Your task to perform on an android device: Do I have any events today? Image 0: 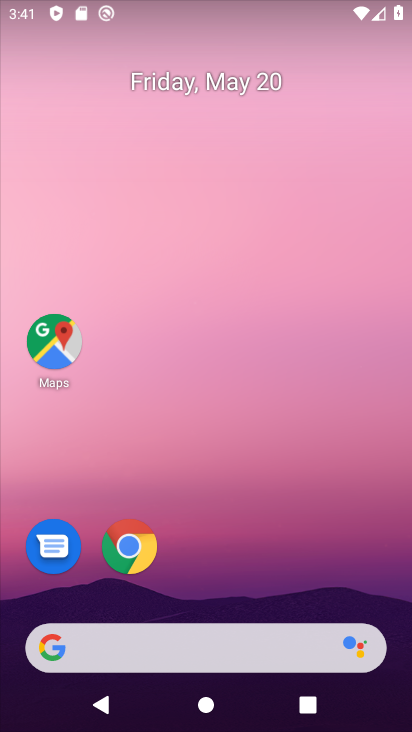
Step 0: drag from (302, 580) to (347, 177)
Your task to perform on an android device: Do I have any events today? Image 1: 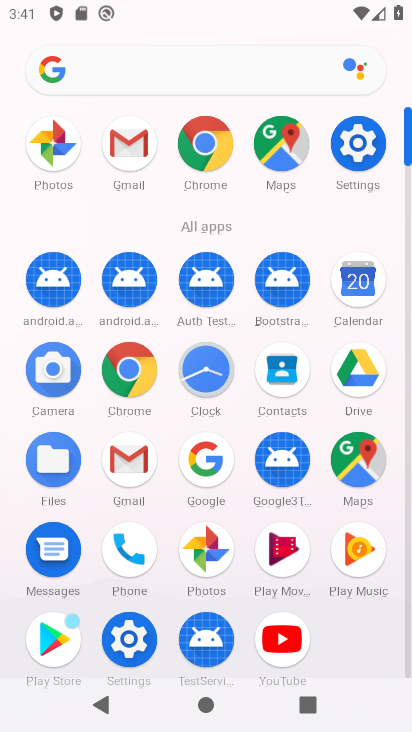
Step 1: click (370, 279)
Your task to perform on an android device: Do I have any events today? Image 2: 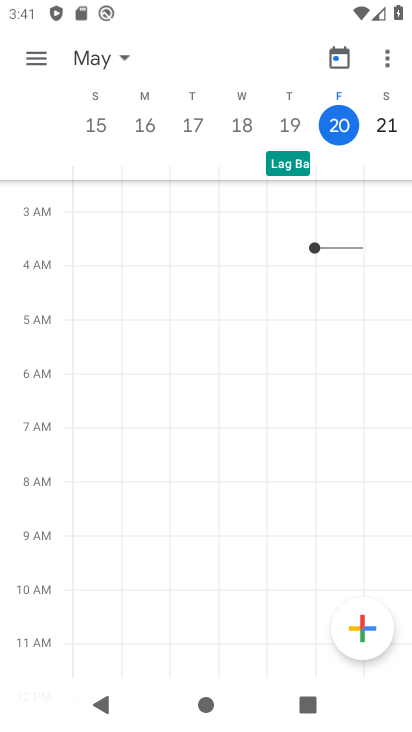
Step 2: click (325, 113)
Your task to perform on an android device: Do I have any events today? Image 3: 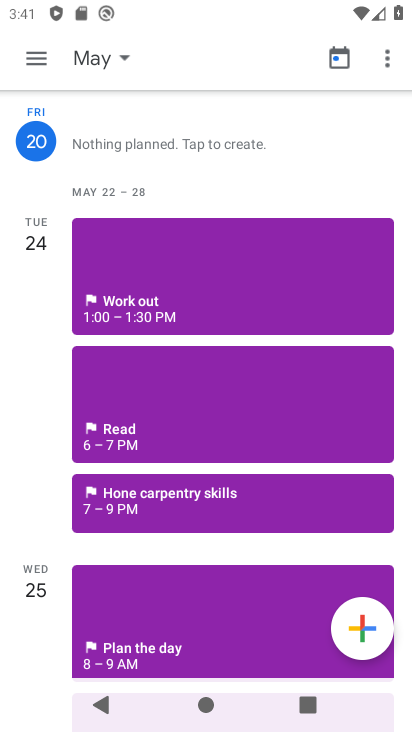
Step 3: task complete